Your task to perform on an android device: Open Reddit.com Image 0: 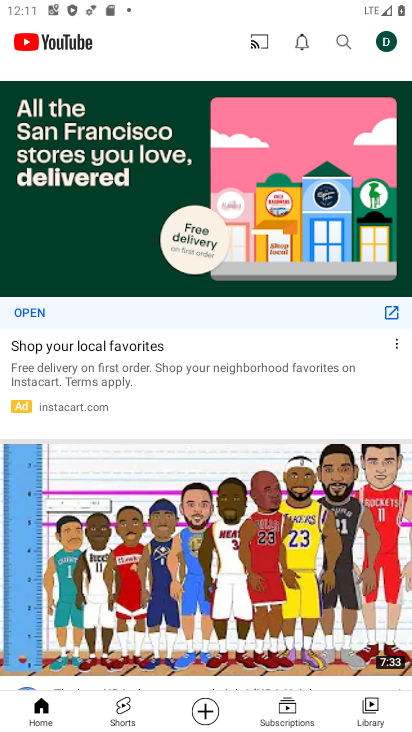
Step 0: press home button
Your task to perform on an android device: Open Reddit.com Image 1: 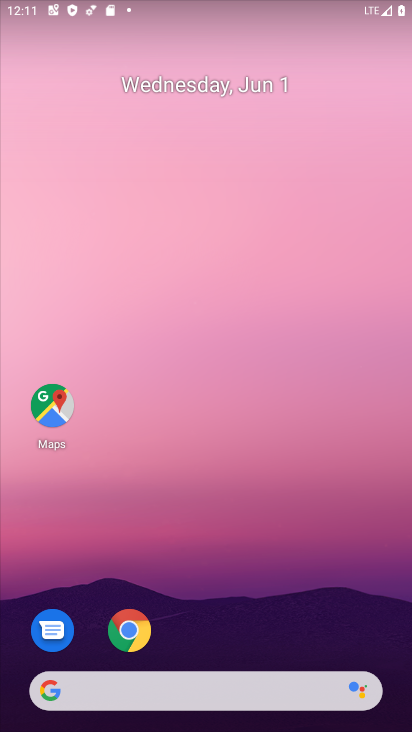
Step 1: click (202, 687)
Your task to perform on an android device: Open Reddit.com Image 2: 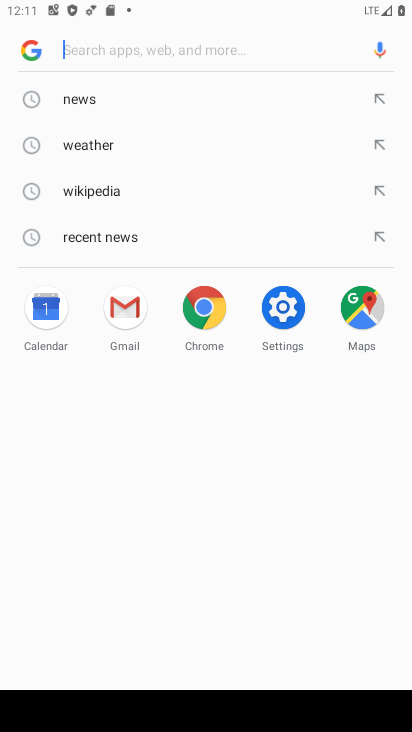
Step 2: type "Reddit.com"
Your task to perform on an android device: Open Reddit.com Image 3: 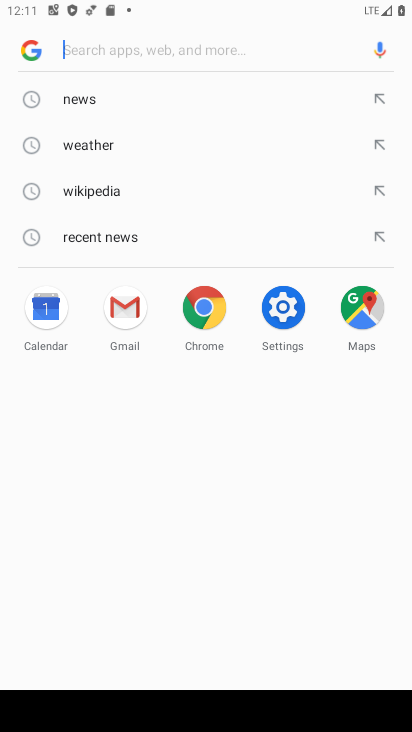
Step 3: click (170, 52)
Your task to perform on an android device: Open Reddit.com Image 4: 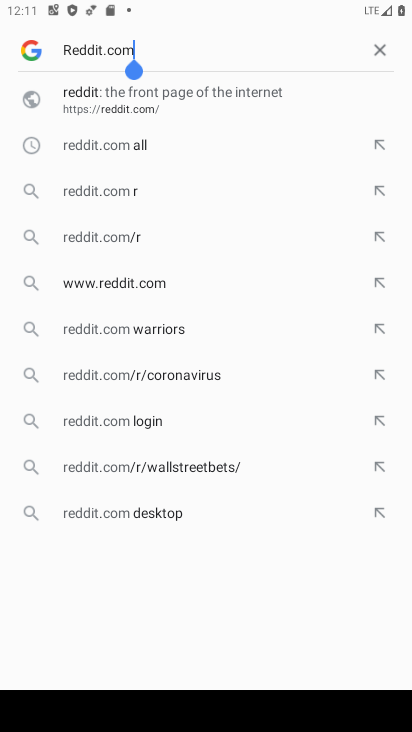
Step 4: click (104, 97)
Your task to perform on an android device: Open Reddit.com Image 5: 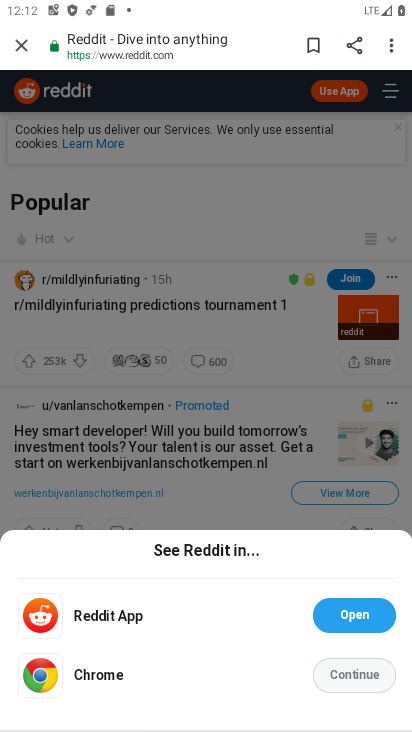
Step 5: task complete